Your task to perform on an android device: What's on my calendar tomorrow? Image 0: 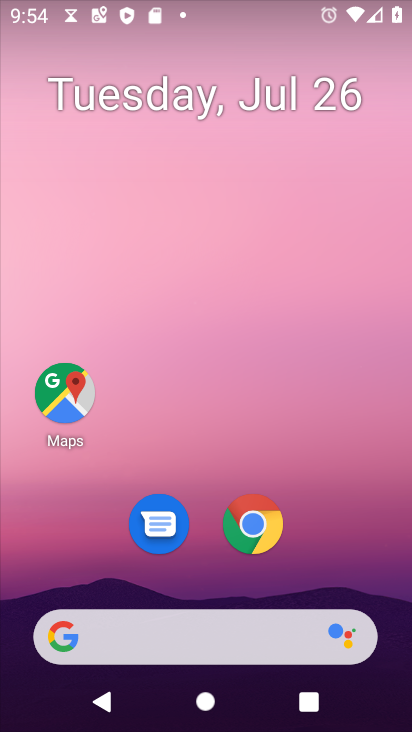
Step 0: drag from (172, 640) to (375, 70)
Your task to perform on an android device: What's on my calendar tomorrow? Image 1: 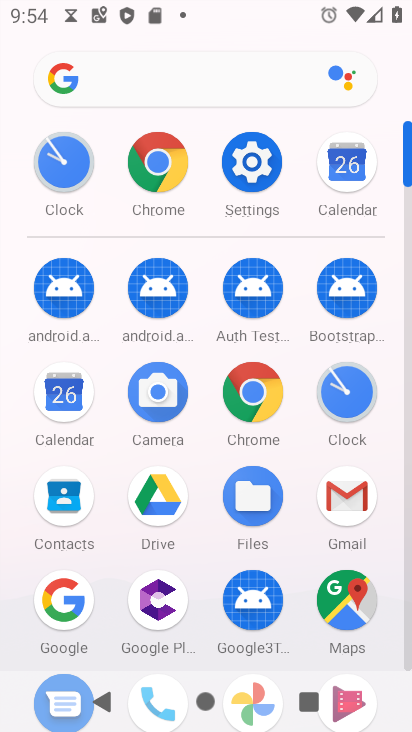
Step 1: click (57, 397)
Your task to perform on an android device: What's on my calendar tomorrow? Image 2: 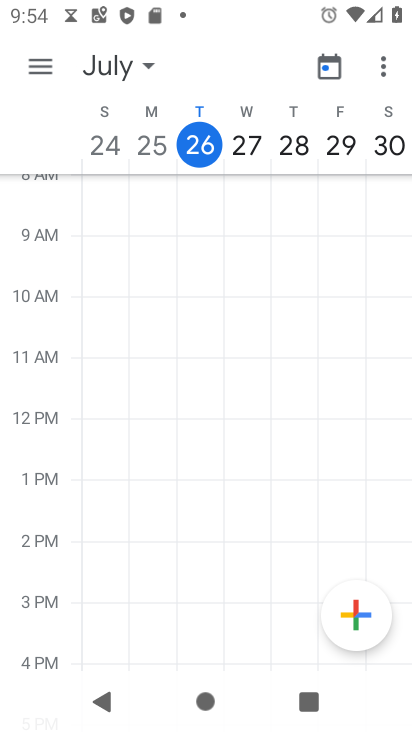
Step 2: click (242, 143)
Your task to perform on an android device: What's on my calendar tomorrow? Image 3: 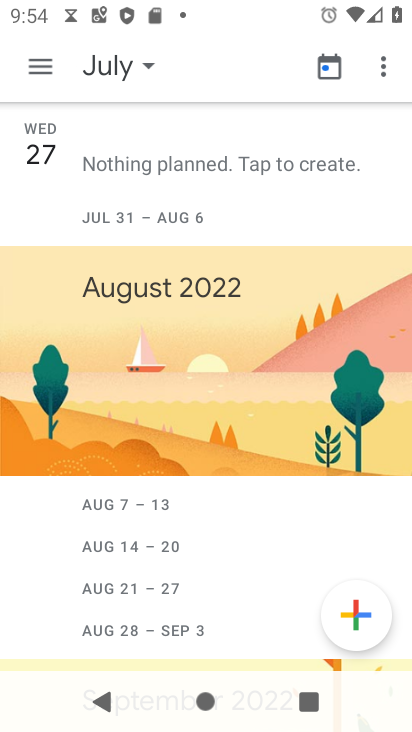
Step 3: task complete